Your task to perform on an android device: Turn on the flashlight Image 0: 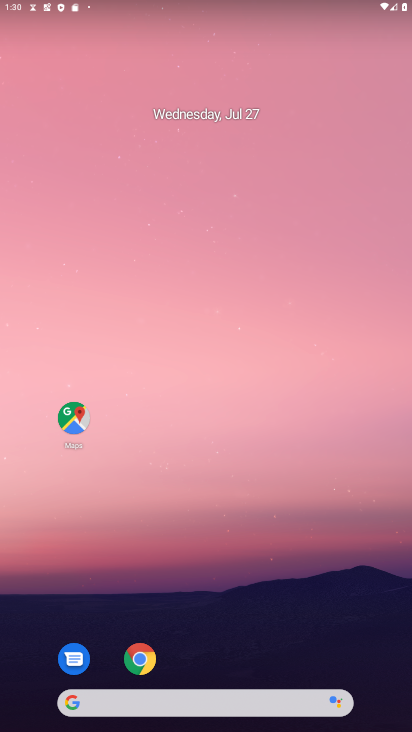
Step 0: drag from (253, 649) to (293, 18)
Your task to perform on an android device: Turn on the flashlight Image 1: 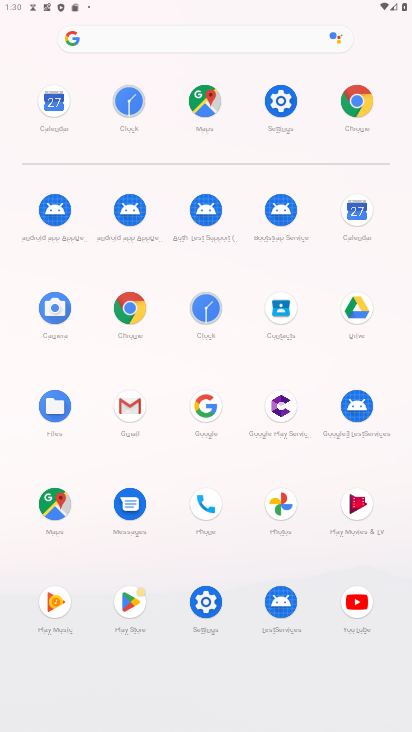
Step 1: click (204, 596)
Your task to perform on an android device: Turn on the flashlight Image 2: 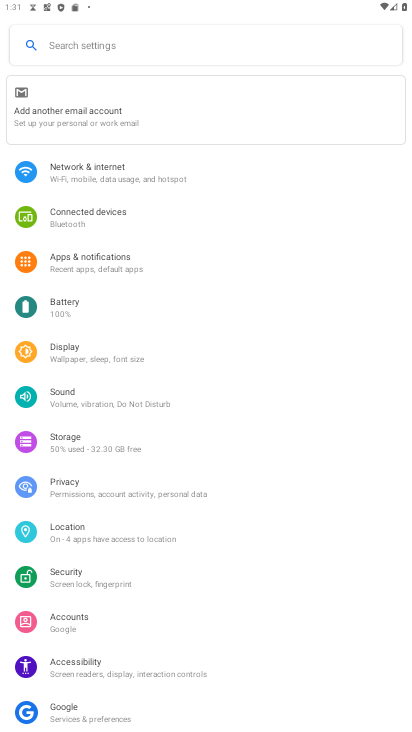
Step 2: click (95, 43)
Your task to perform on an android device: Turn on the flashlight Image 3: 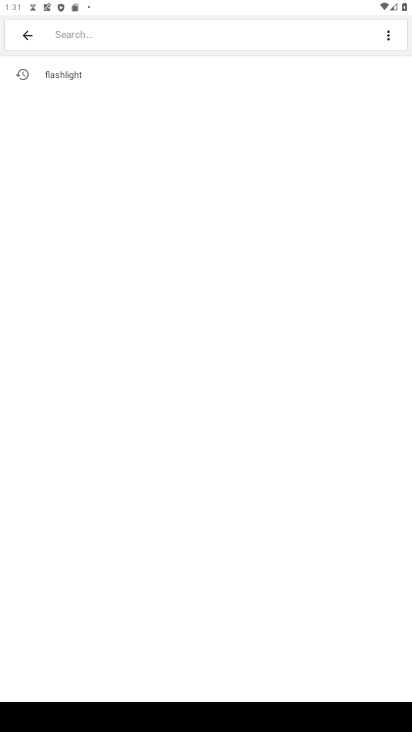
Step 3: click (67, 65)
Your task to perform on an android device: Turn on the flashlight Image 4: 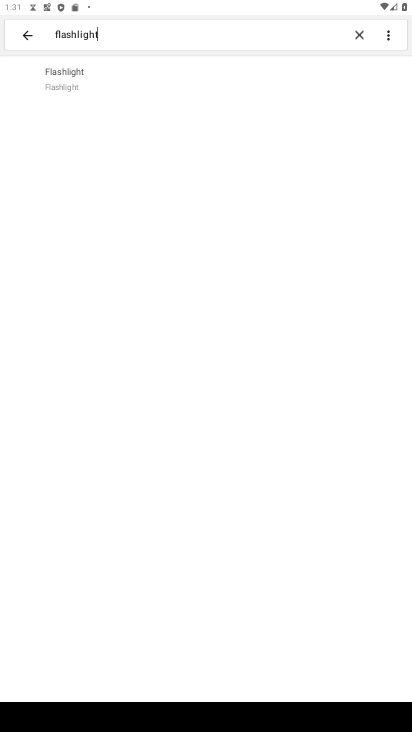
Step 4: task complete